Your task to perform on an android device: snooze an email in the gmail app Image 0: 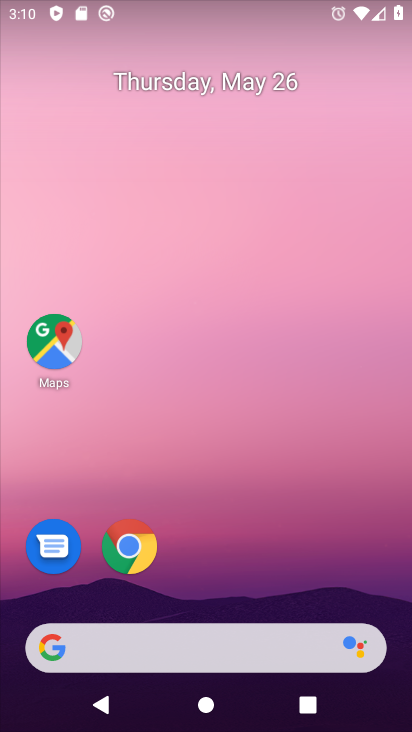
Step 0: drag from (401, 625) to (399, 324)
Your task to perform on an android device: snooze an email in the gmail app Image 1: 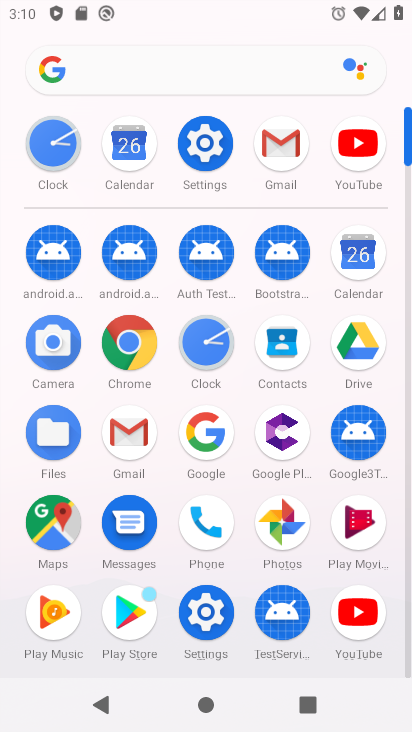
Step 1: click (135, 448)
Your task to perform on an android device: snooze an email in the gmail app Image 2: 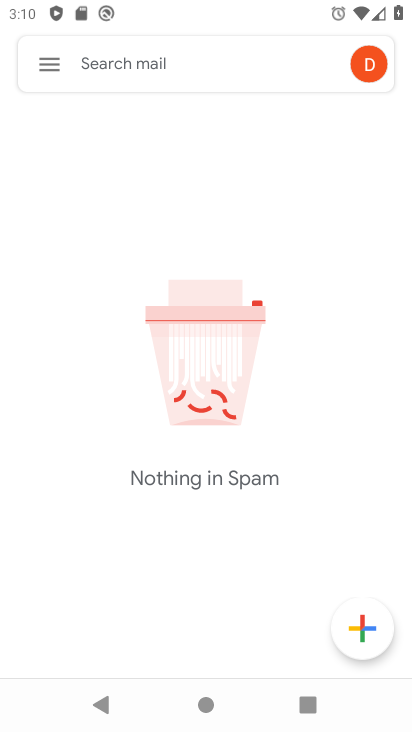
Step 2: click (48, 66)
Your task to perform on an android device: snooze an email in the gmail app Image 3: 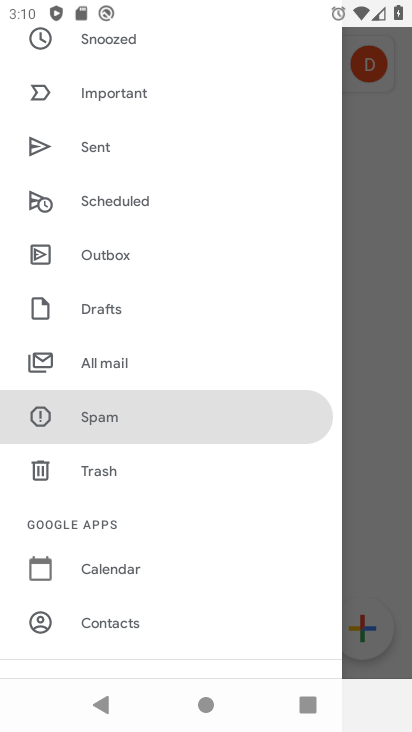
Step 3: drag from (234, 243) to (225, 555)
Your task to perform on an android device: snooze an email in the gmail app Image 4: 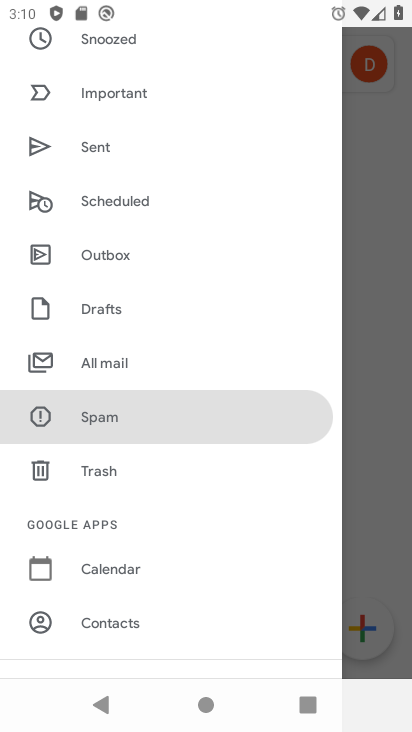
Step 4: drag from (277, 241) to (318, 568)
Your task to perform on an android device: snooze an email in the gmail app Image 5: 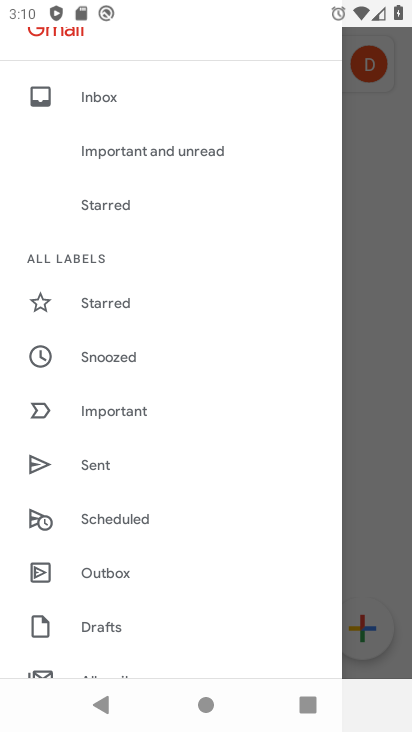
Step 5: click (84, 95)
Your task to perform on an android device: snooze an email in the gmail app Image 6: 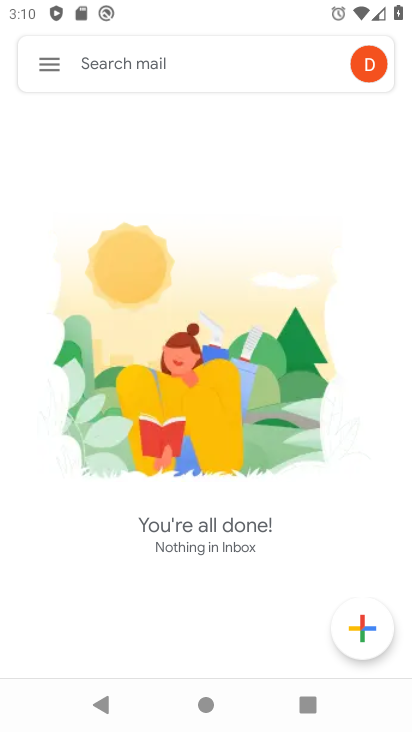
Step 6: click (44, 70)
Your task to perform on an android device: snooze an email in the gmail app Image 7: 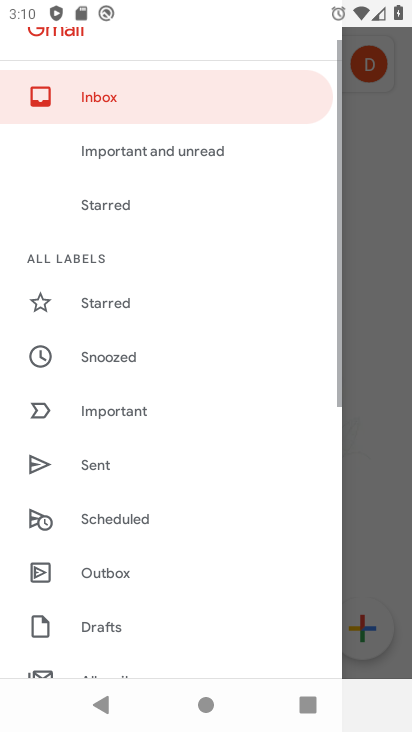
Step 7: click (81, 105)
Your task to perform on an android device: snooze an email in the gmail app Image 8: 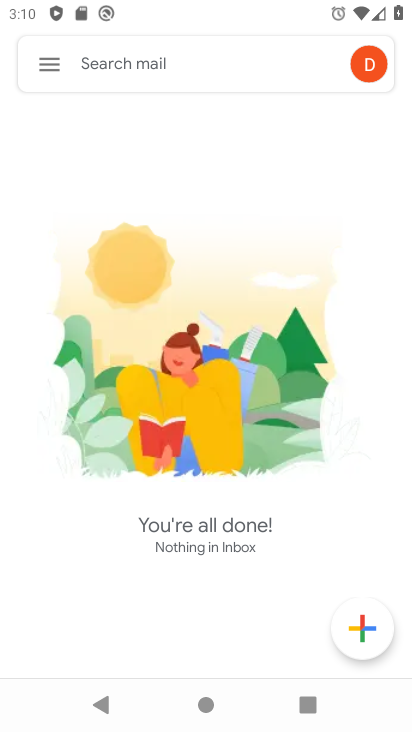
Step 8: task complete